Your task to perform on an android device: delete the emails in spam in the gmail app Image 0: 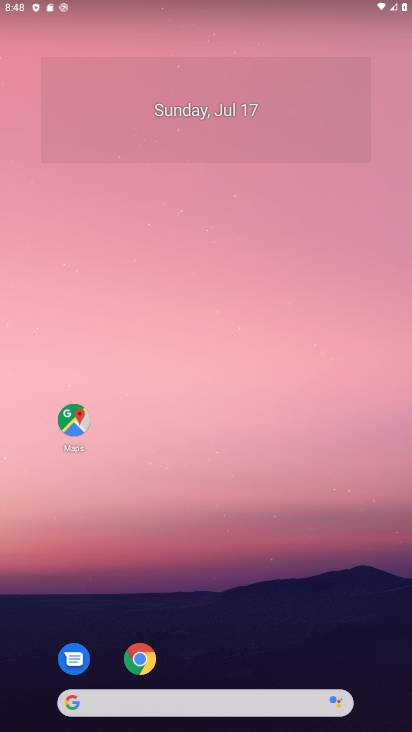
Step 0: drag from (183, 699) to (223, 125)
Your task to perform on an android device: delete the emails in spam in the gmail app Image 1: 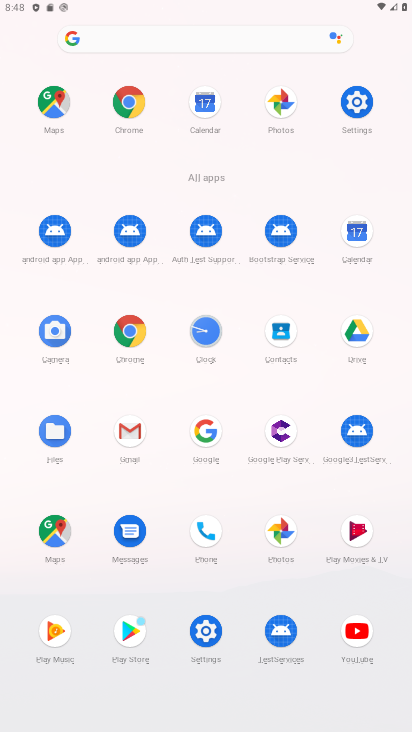
Step 1: click (131, 431)
Your task to perform on an android device: delete the emails in spam in the gmail app Image 2: 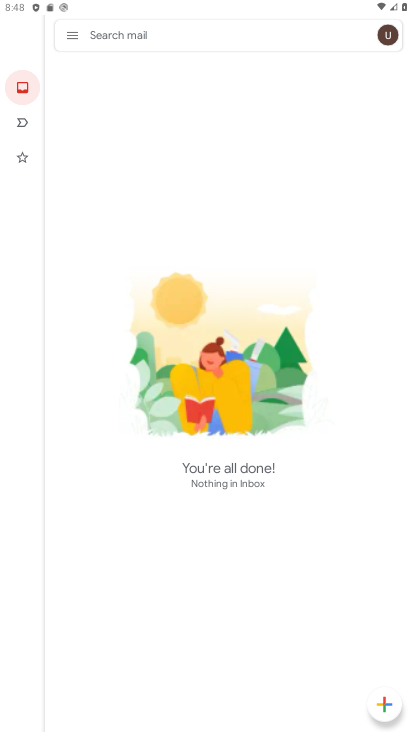
Step 2: click (72, 35)
Your task to perform on an android device: delete the emails in spam in the gmail app Image 3: 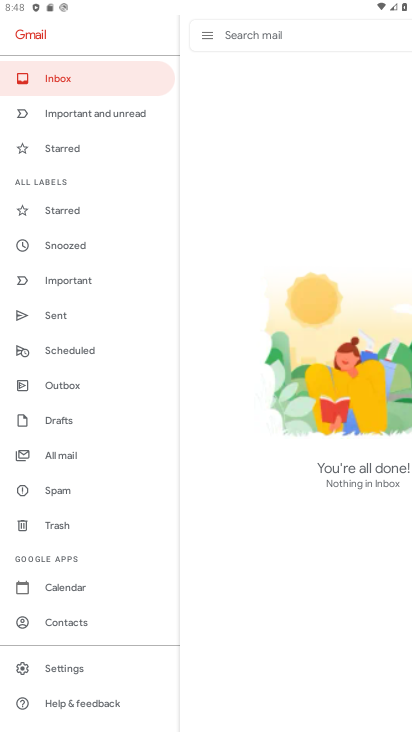
Step 3: click (60, 491)
Your task to perform on an android device: delete the emails in spam in the gmail app Image 4: 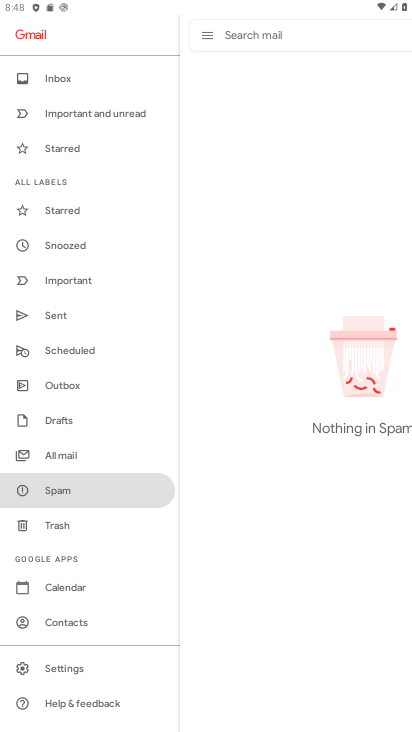
Step 4: task complete